Your task to perform on an android device: turn off wifi Image 0: 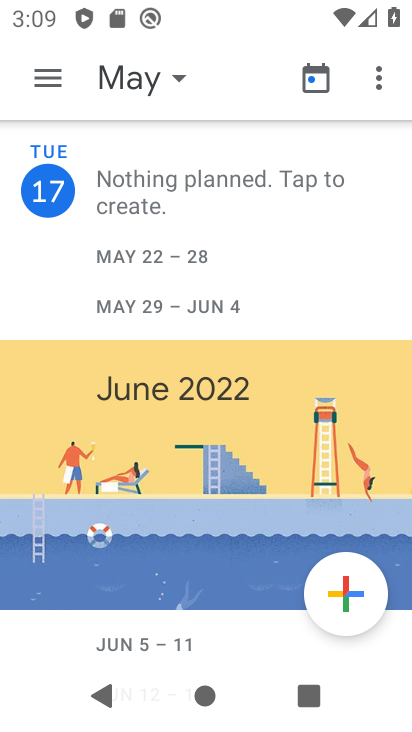
Step 0: press home button
Your task to perform on an android device: turn off wifi Image 1: 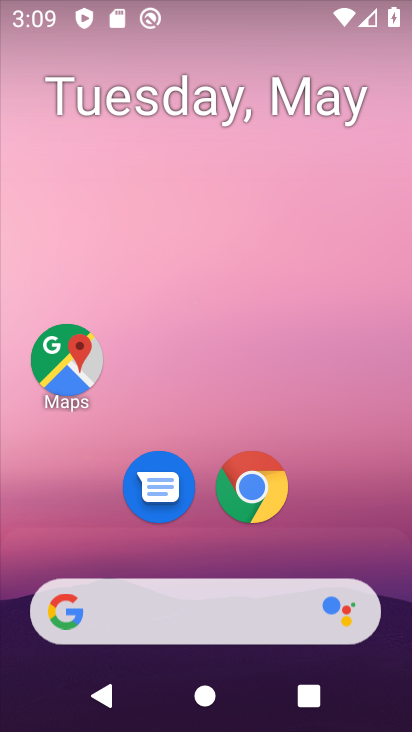
Step 1: drag from (340, 494) to (325, 108)
Your task to perform on an android device: turn off wifi Image 2: 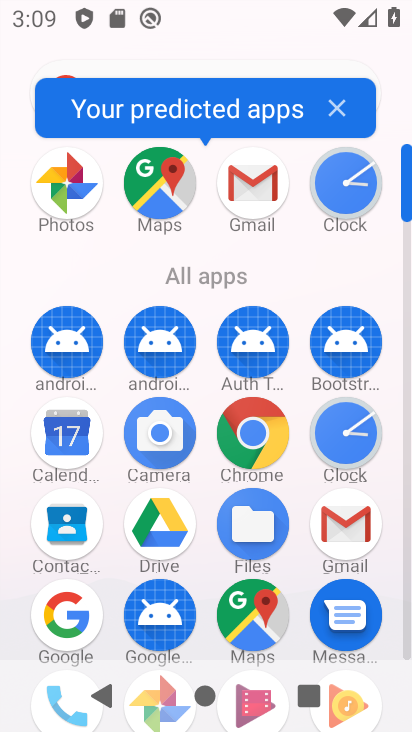
Step 2: drag from (287, 452) to (289, 113)
Your task to perform on an android device: turn off wifi Image 3: 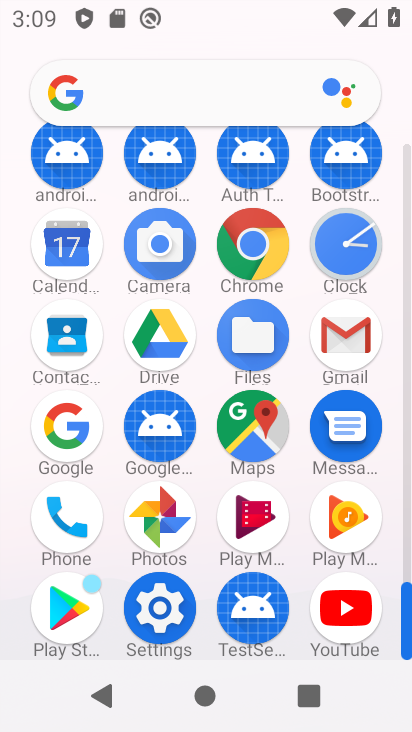
Step 3: click (168, 608)
Your task to perform on an android device: turn off wifi Image 4: 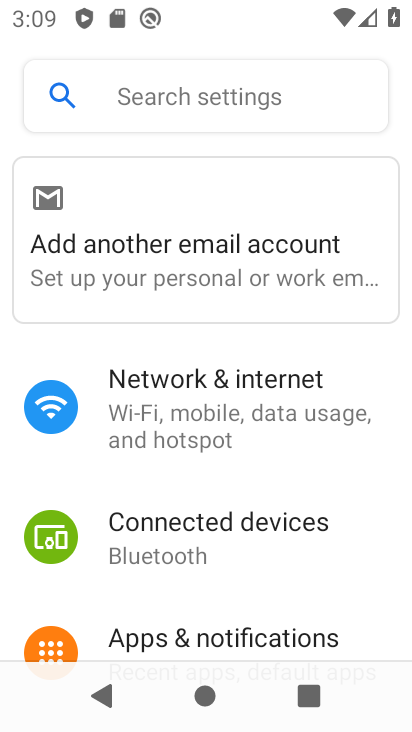
Step 4: click (210, 389)
Your task to perform on an android device: turn off wifi Image 5: 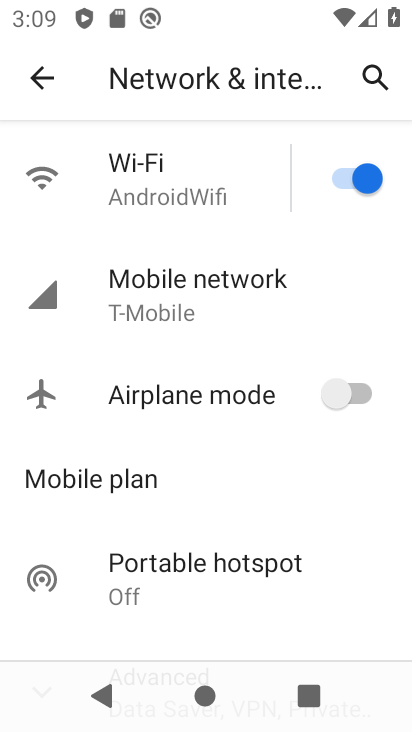
Step 5: click (200, 176)
Your task to perform on an android device: turn off wifi Image 6: 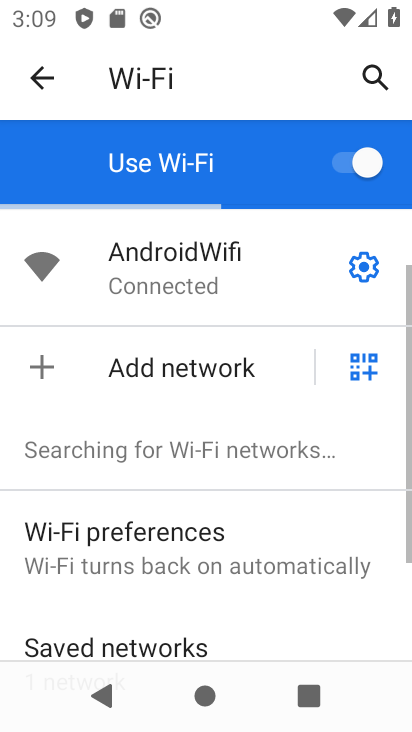
Step 6: click (365, 155)
Your task to perform on an android device: turn off wifi Image 7: 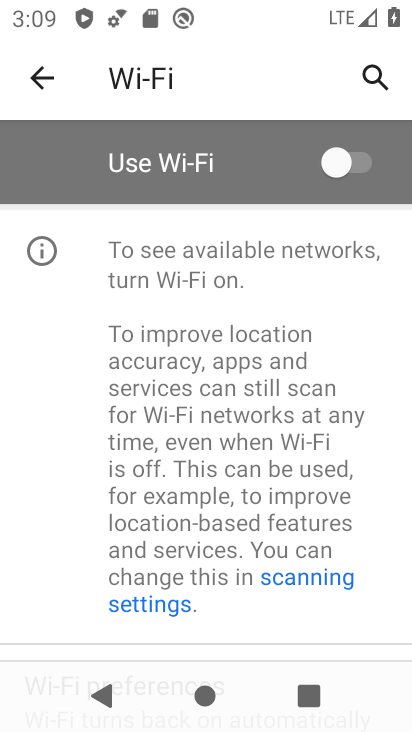
Step 7: task complete